Your task to perform on an android device: Open the Play Movies app and select the watchlist tab. Image 0: 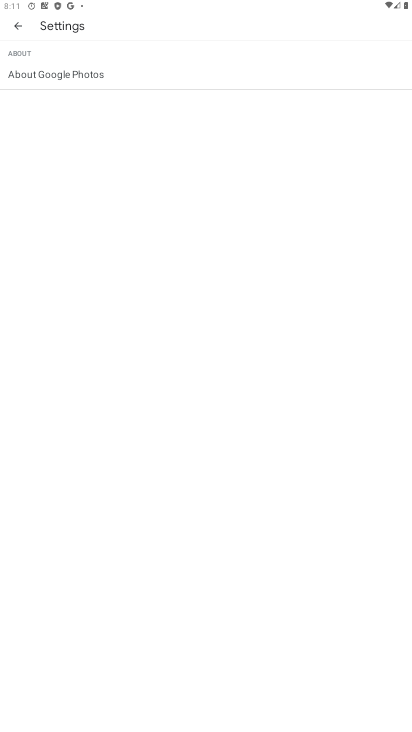
Step 0: press home button
Your task to perform on an android device: Open the Play Movies app and select the watchlist tab. Image 1: 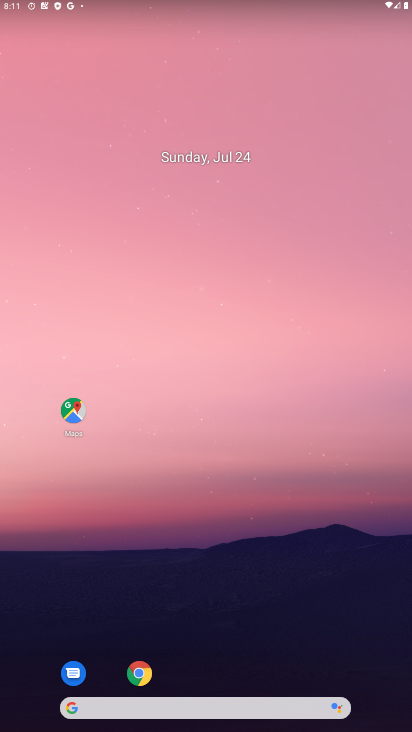
Step 1: drag from (19, 712) to (211, 78)
Your task to perform on an android device: Open the Play Movies app and select the watchlist tab. Image 2: 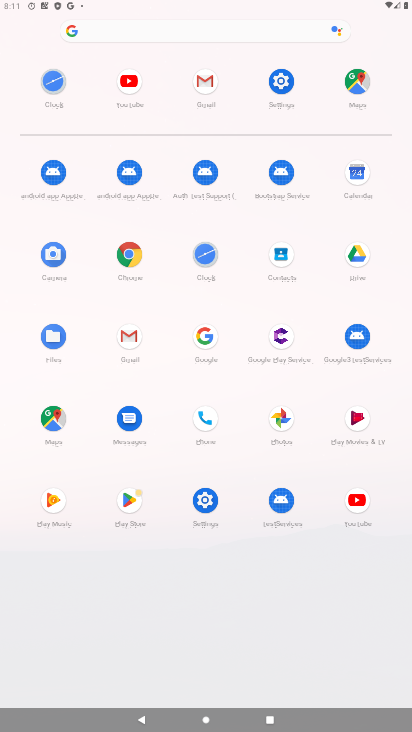
Step 2: click (360, 417)
Your task to perform on an android device: Open the Play Movies app and select the watchlist tab. Image 3: 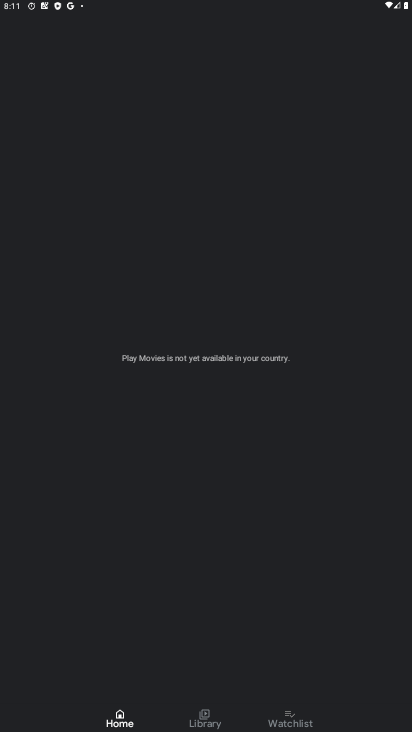
Step 3: click (305, 695)
Your task to perform on an android device: Open the Play Movies app and select the watchlist tab. Image 4: 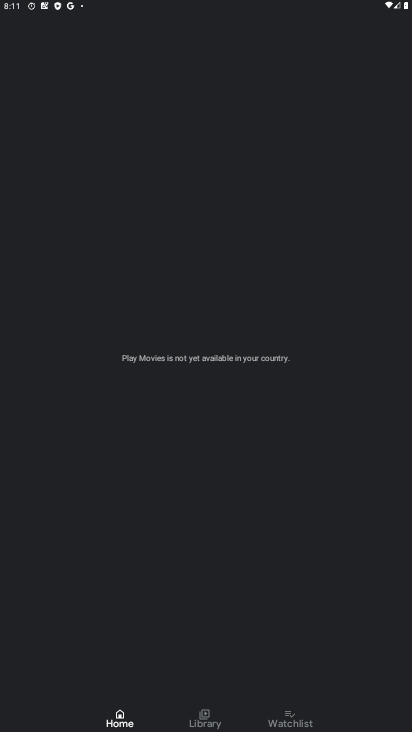
Step 4: click (294, 723)
Your task to perform on an android device: Open the Play Movies app and select the watchlist tab. Image 5: 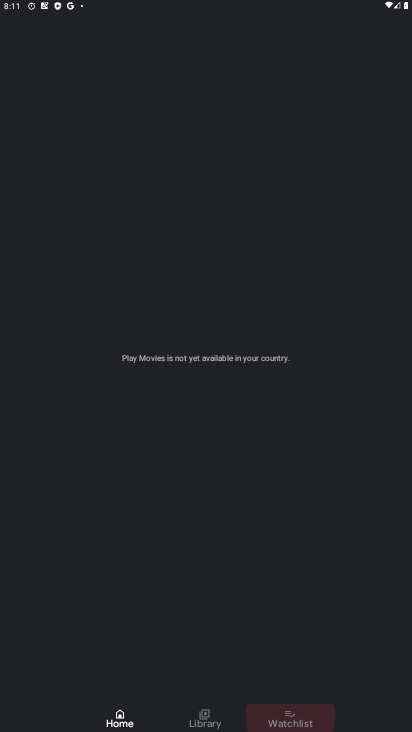
Step 5: click (294, 722)
Your task to perform on an android device: Open the Play Movies app and select the watchlist tab. Image 6: 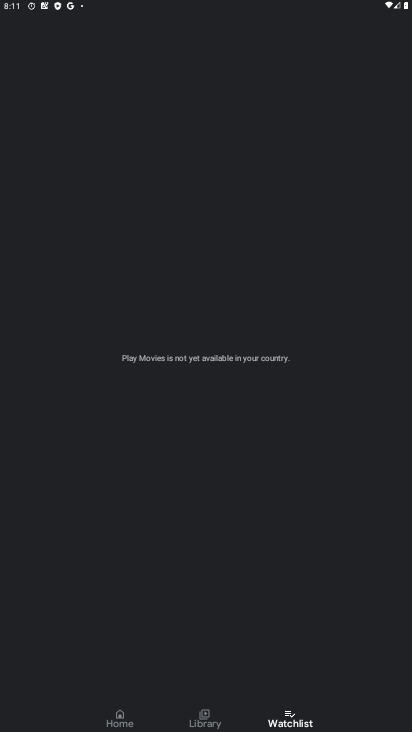
Step 6: task complete